Your task to perform on an android device: toggle notification dots Image 0: 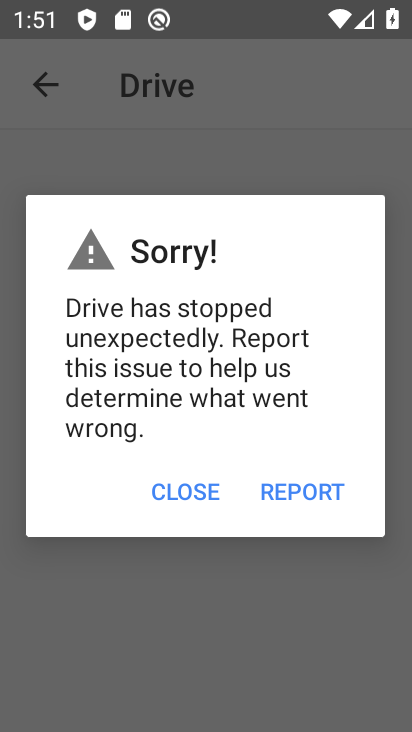
Step 0: press back button
Your task to perform on an android device: toggle notification dots Image 1: 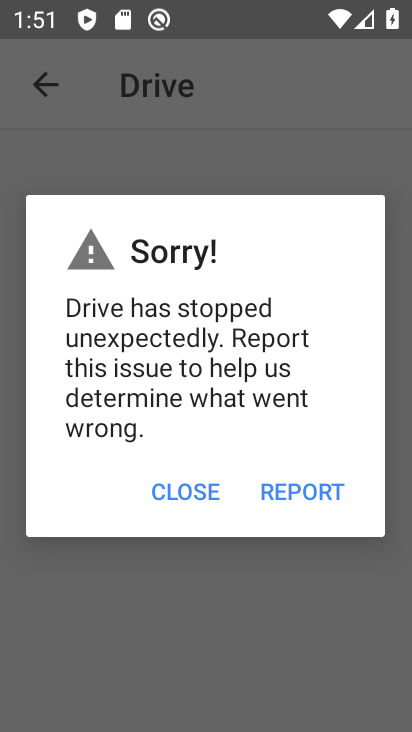
Step 1: press home button
Your task to perform on an android device: toggle notification dots Image 2: 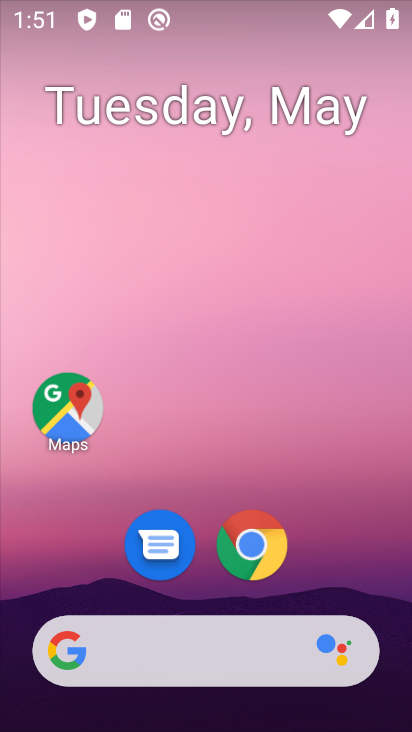
Step 2: drag from (396, 580) to (204, 32)
Your task to perform on an android device: toggle notification dots Image 3: 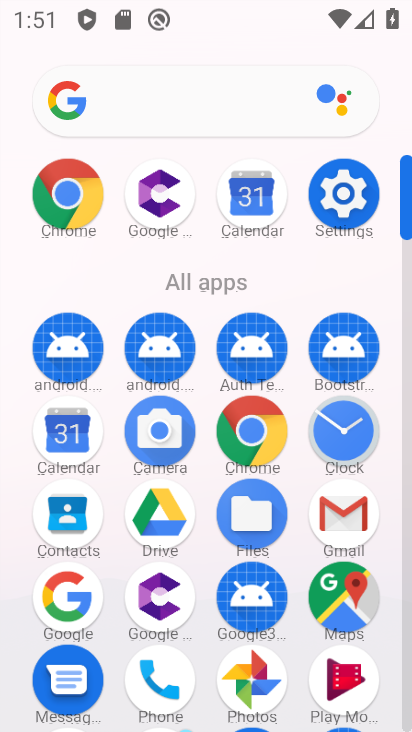
Step 3: click (341, 187)
Your task to perform on an android device: toggle notification dots Image 4: 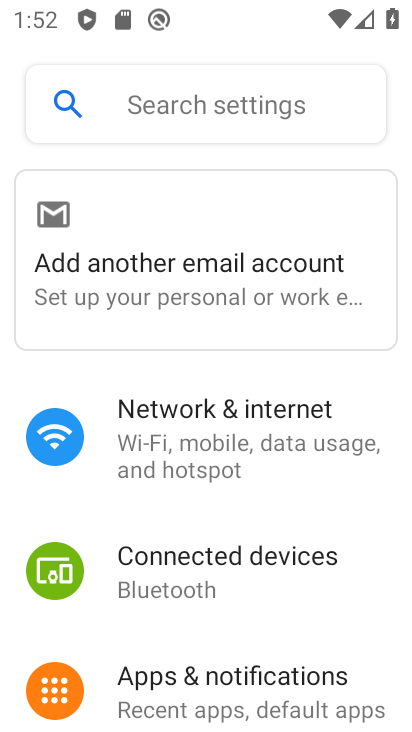
Step 4: drag from (322, 549) to (298, 161)
Your task to perform on an android device: toggle notification dots Image 5: 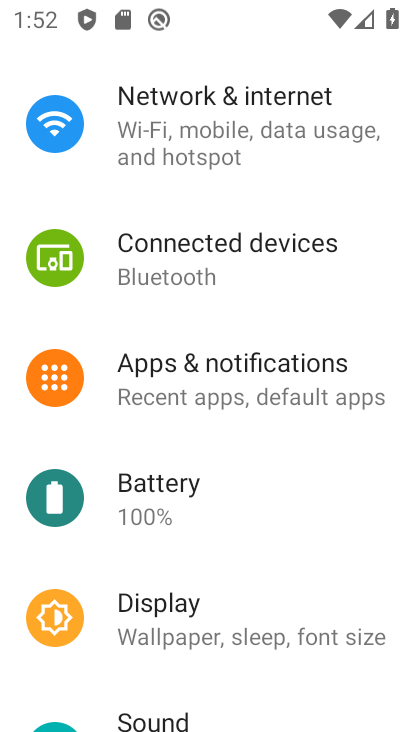
Step 5: click (238, 375)
Your task to perform on an android device: toggle notification dots Image 6: 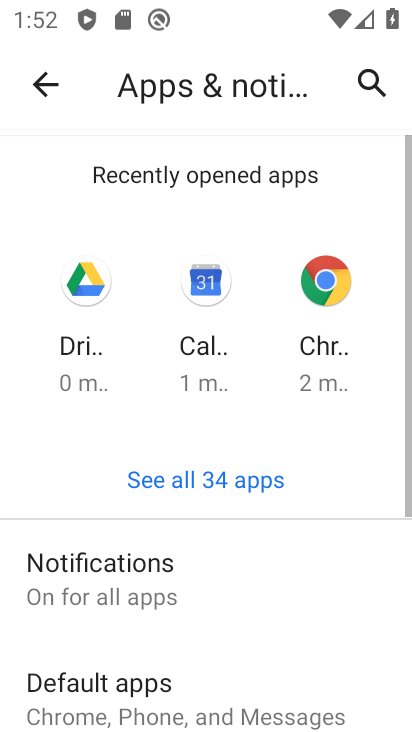
Step 6: drag from (208, 606) to (200, 187)
Your task to perform on an android device: toggle notification dots Image 7: 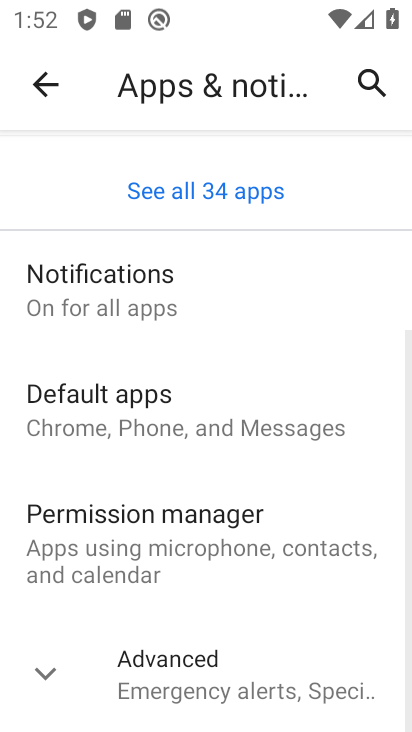
Step 7: click (158, 286)
Your task to perform on an android device: toggle notification dots Image 8: 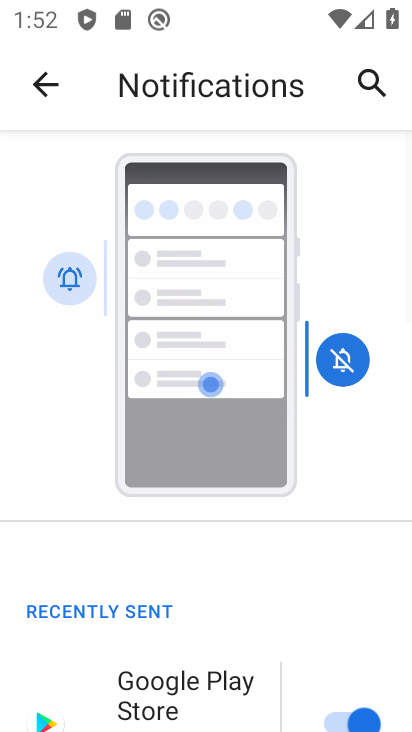
Step 8: drag from (218, 636) to (204, 138)
Your task to perform on an android device: toggle notification dots Image 9: 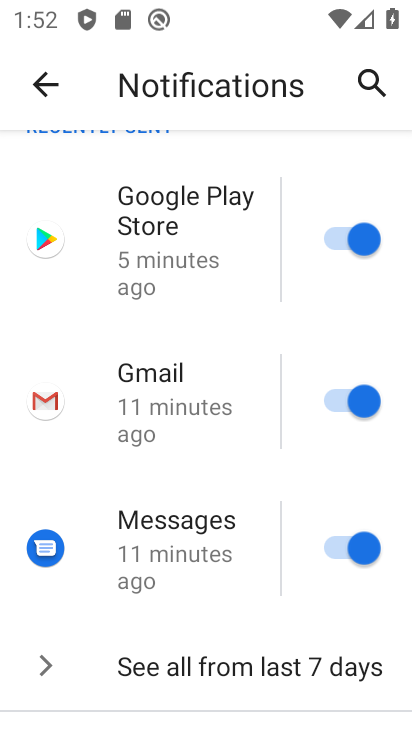
Step 9: drag from (200, 646) to (222, 175)
Your task to perform on an android device: toggle notification dots Image 10: 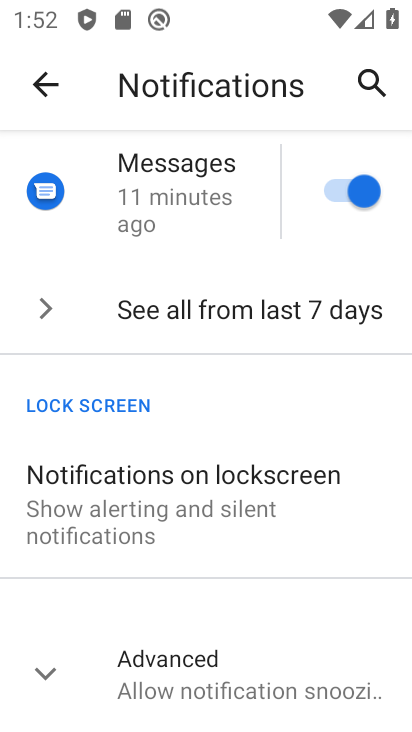
Step 10: click (44, 661)
Your task to perform on an android device: toggle notification dots Image 11: 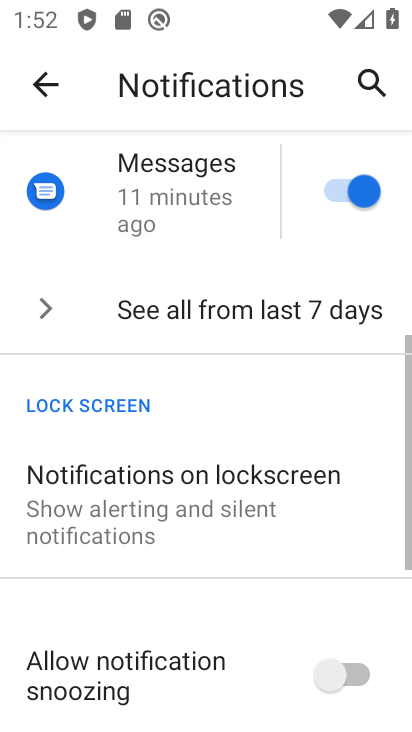
Step 11: drag from (204, 619) to (219, 220)
Your task to perform on an android device: toggle notification dots Image 12: 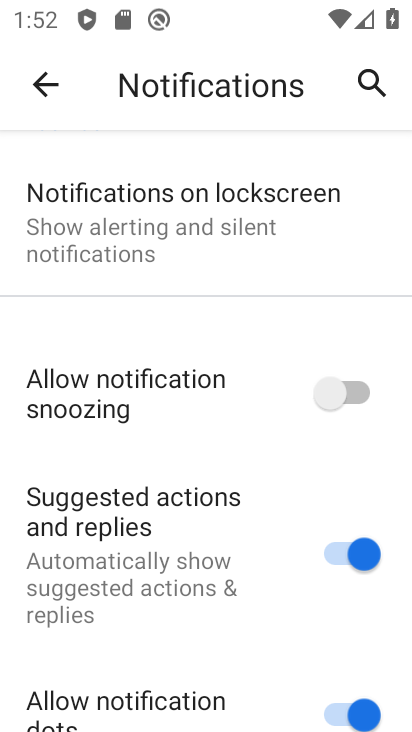
Step 12: drag from (186, 619) to (204, 245)
Your task to perform on an android device: toggle notification dots Image 13: 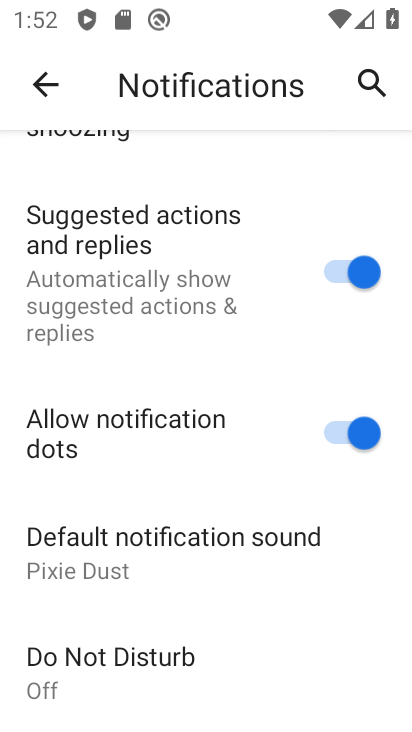
Step 13: click (353, 431)
Your task to perform on an android device: toggle notification dots Image 14: 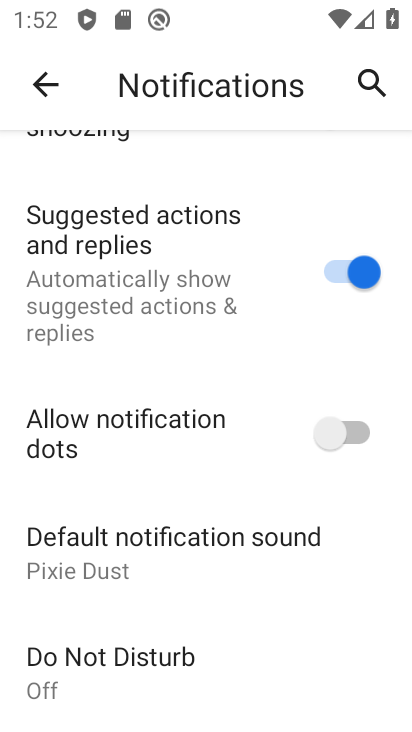
Step 14: task complete